Your task to perform on an android device: Show the shopping cart on ebay. Search for macbook air on ebay, select the first entry, add it to the cart, then select checkout. Image 0: 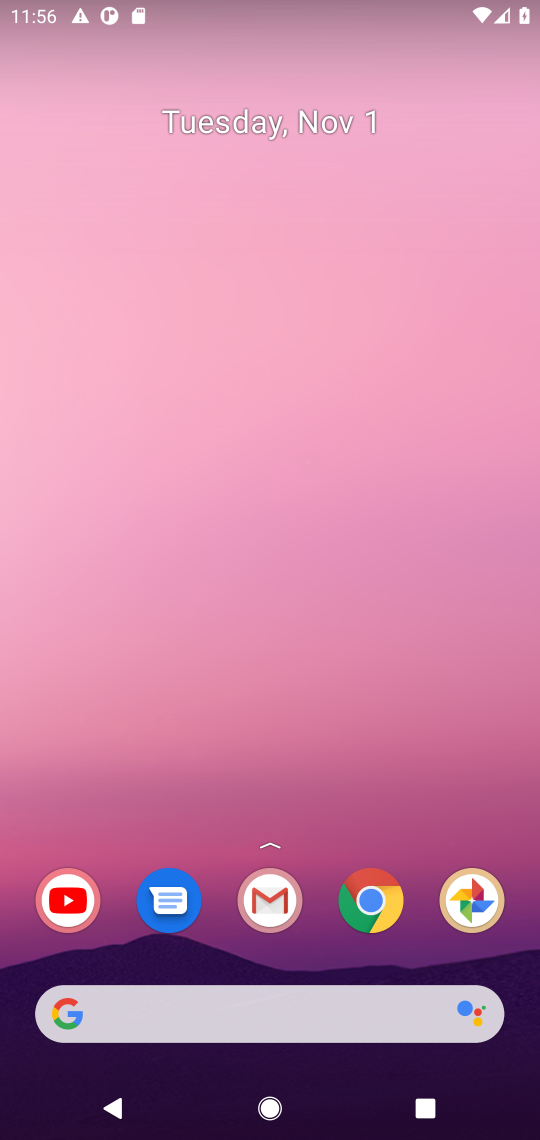
Step 0: click (376, 917)
Your task to perform on an android device: Show the shopping cart on ebay. Search for macbook air on ebay, select the first entry, add it to the cart, then select checkout. Image 1: 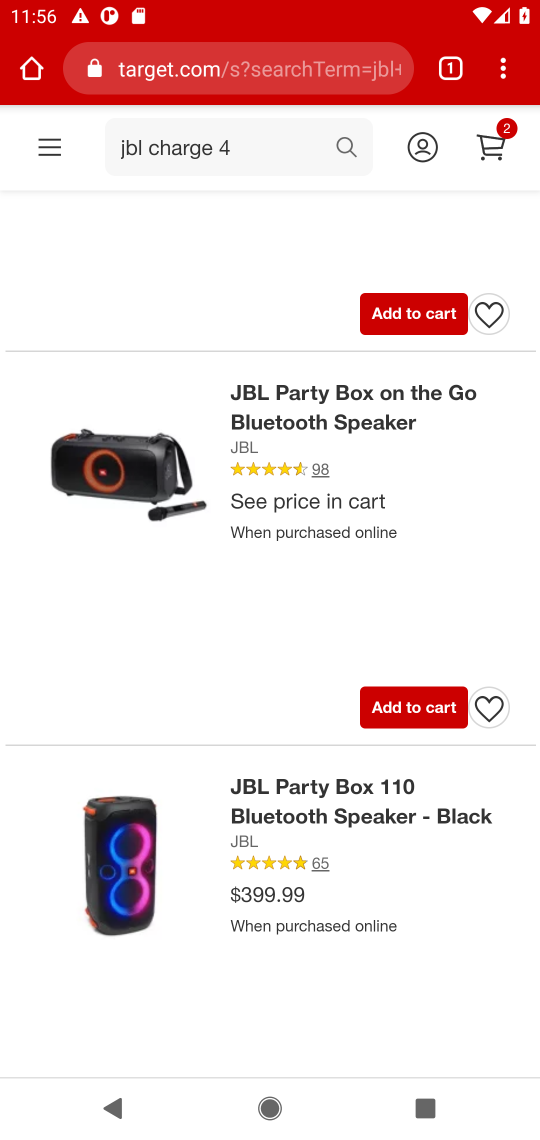
Step 1: click (263, 69)
Your task to perform on an android device: Show the shopping cart on ebay. Search for macbook air on ebay, select the first entry, add it to the cart, then select checkout. Image 2: 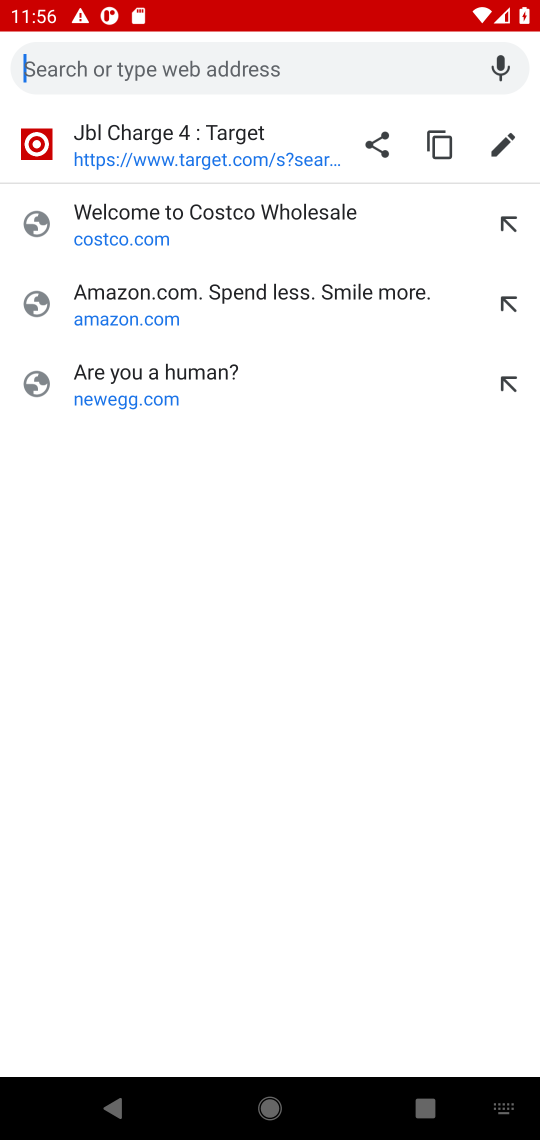
Step 2: type "ebay"
Your task to perform on an android device: Show the shopping cart on ebay. Search for macbook air on ebay, select the first entry, add it to the cart, then select checkout. Image 3: 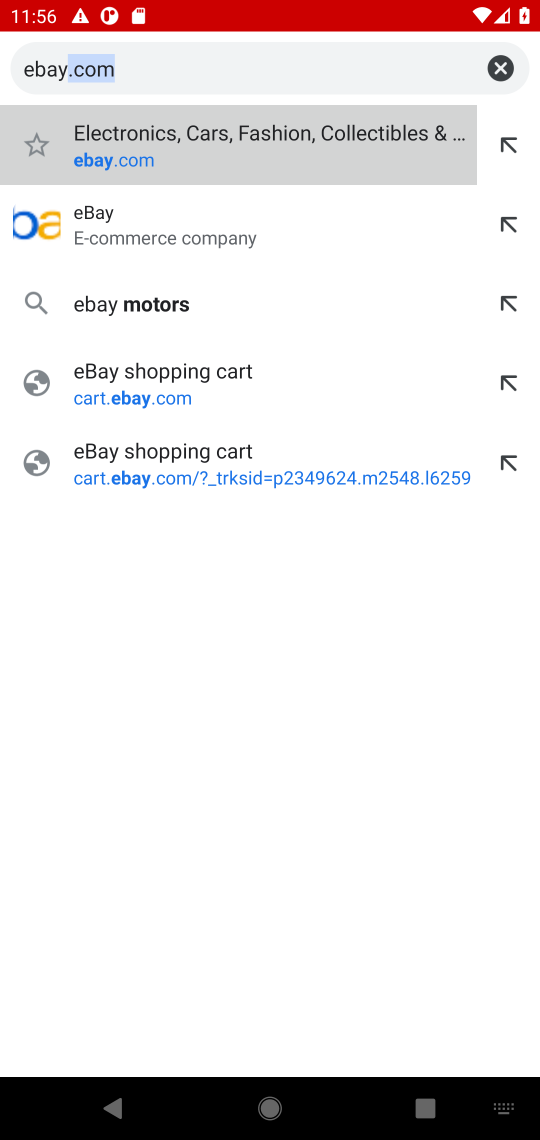
Step 3: click (22, 211)
Your task to perform on an android device: Show the shopping cart on ebay. Search for macbook air on ebay, select the first entry, add it to the cart, then select checkout. Image 4: 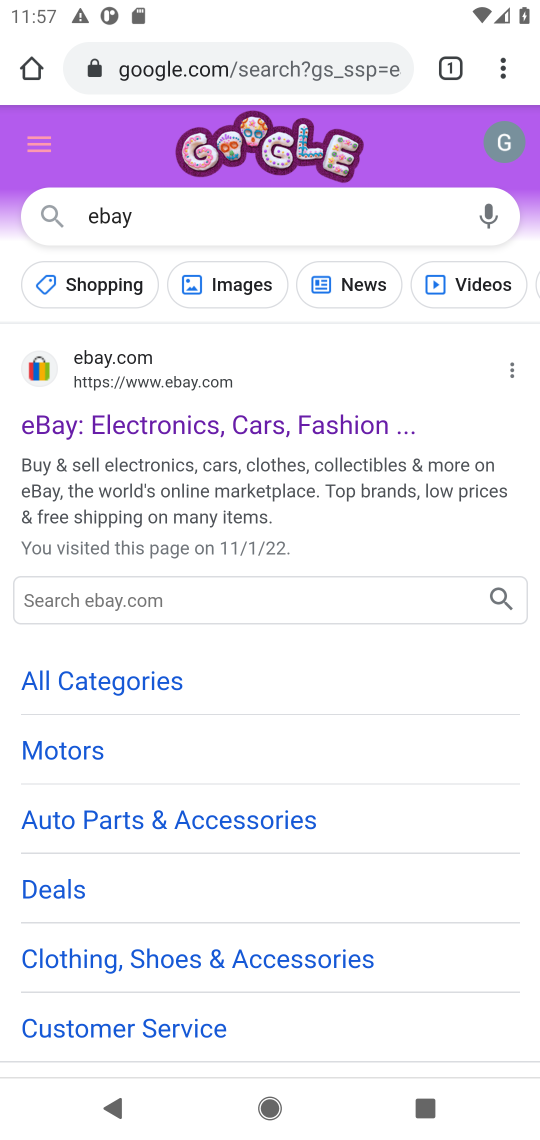
Step 4: click (23, 415)
Your task to perform on an android device: Show the shopping cart on ebay. Search for macbook air on ebay, select the first entry, add it to the cart, then select checkout. Image 5: 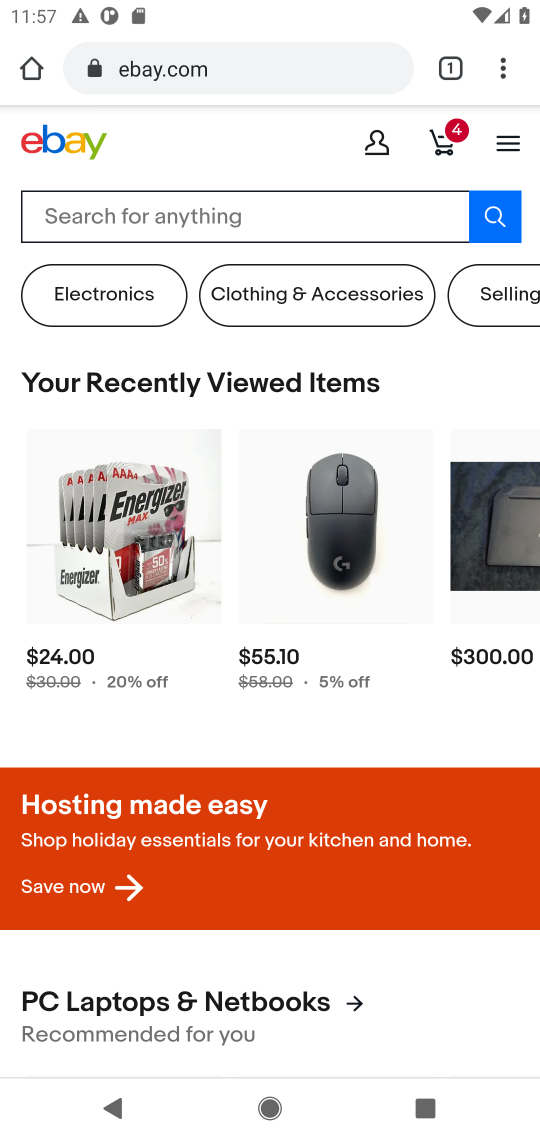
Step 5: click (459, 147)
Your task to perform on an android device: Show the shopping cart on ebay. Search for macbook air on ebay, select the first entry, add it to the cart, then select checkout. Image 6: 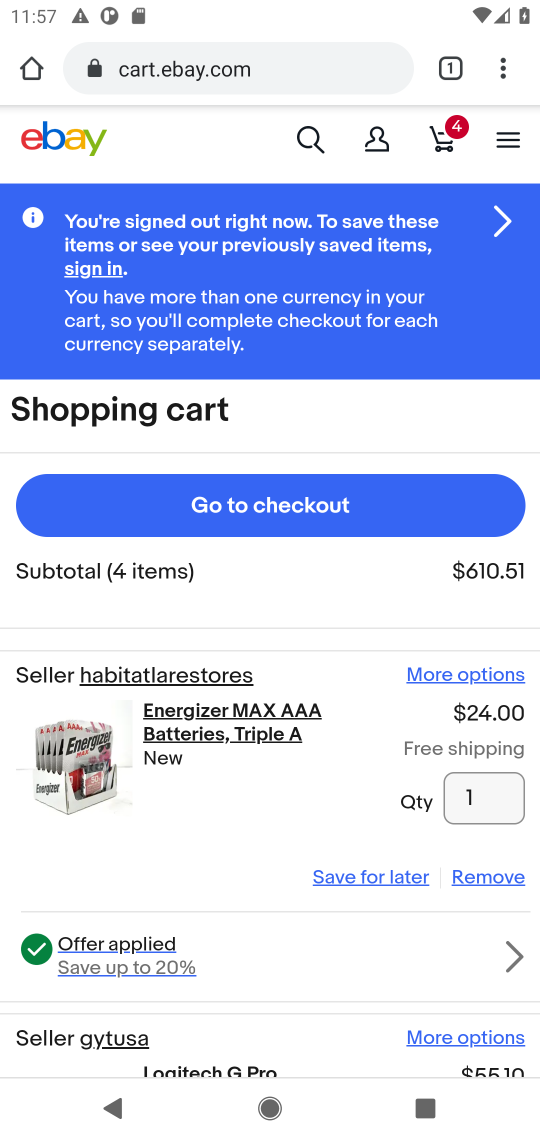
Step 6: click (318, 149)
Your task to perform on an android device: Show the shopping cart on ebay. Search for macbook air on ebay, select the first entry, add it to the cart, then select checkout. Image 7: 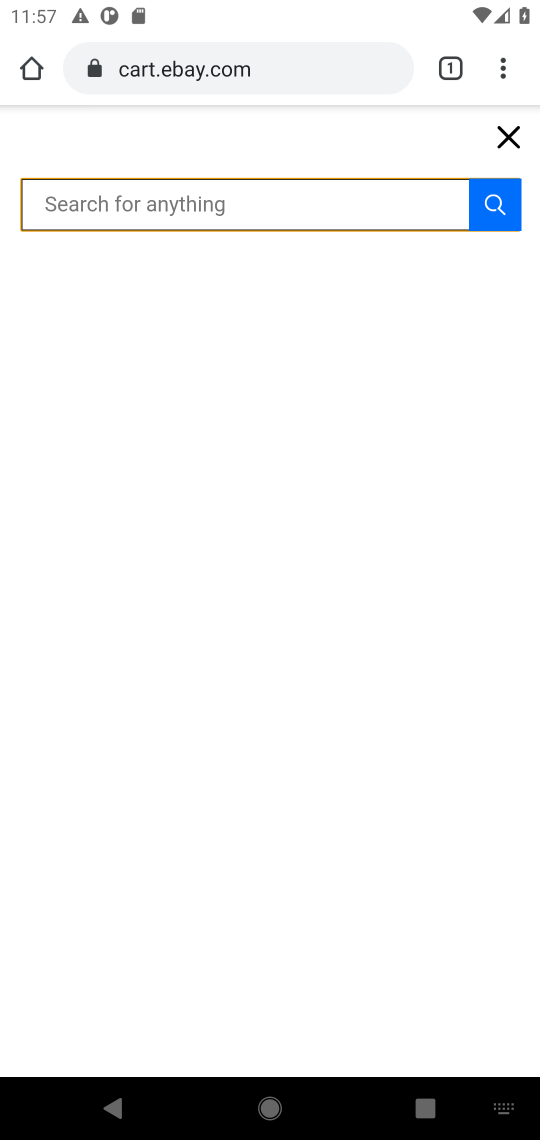
Step 7: type "macbook air "
Your task to perform on an android device: Show the shopping cart on ebay. Search for macbook air on ebay, select the first entry, add it to the cart, then select checkout. Image 8: 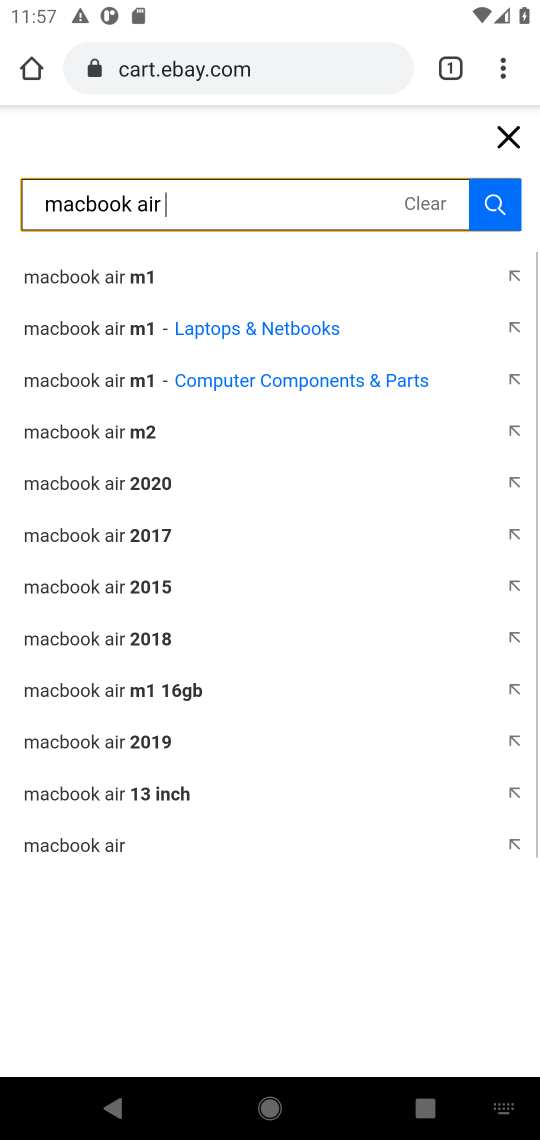
Step 8: type ""
Your task to perform on an android device: Show the shopping cart on ebay. Search for macbook air on ebay, select the first entry, add it to the cart, then select checkout. Image 9: 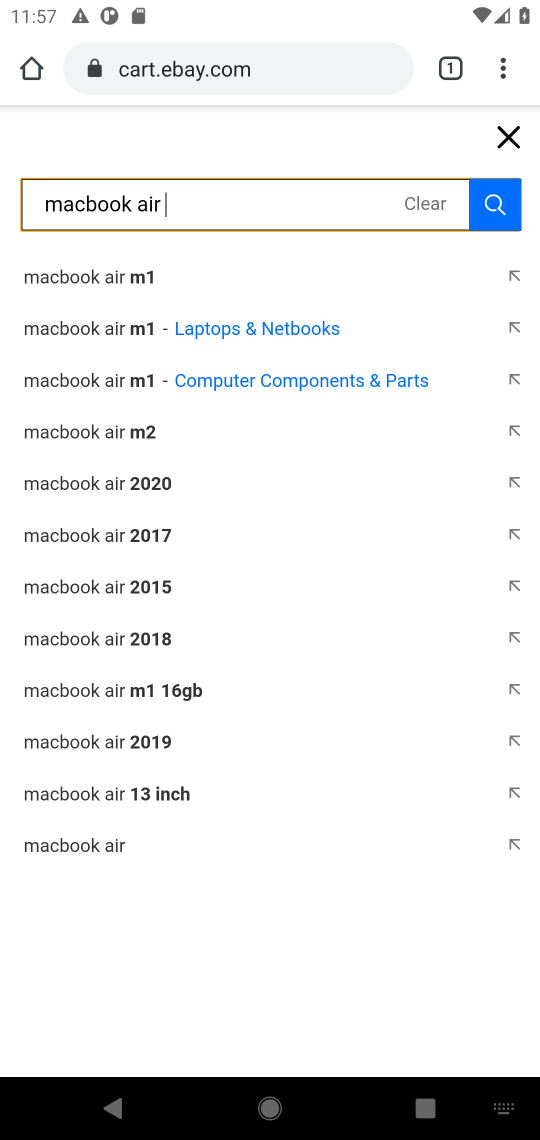
Step 9: click (483, 205)
Your task to perform on an android device: Show the shopping cart on ebay. Search for macbook air on ebay, select the first entry, add it to the cart, then select checkout. Image 10: 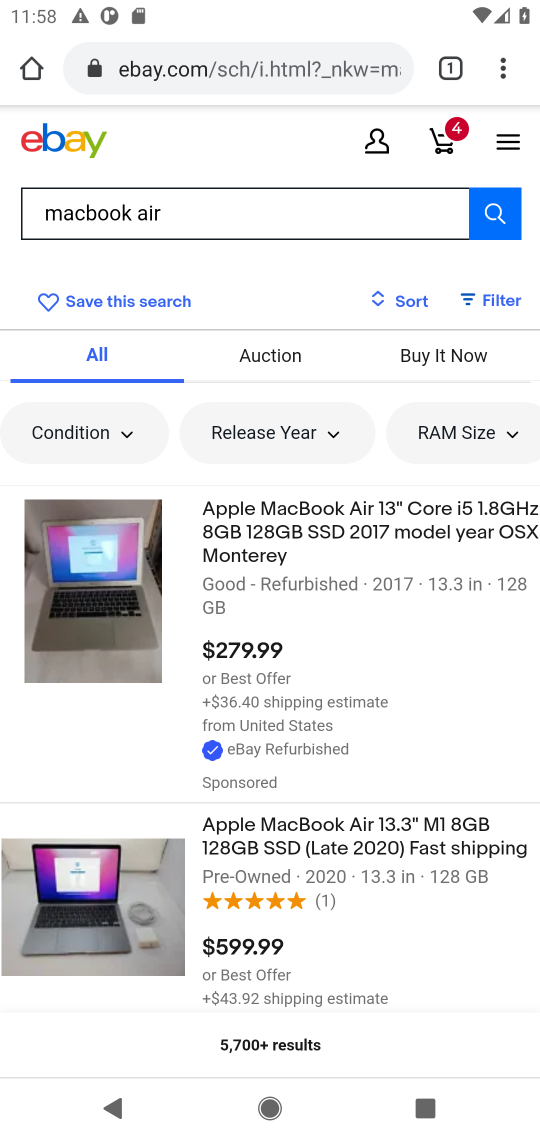
Step 10: click (380, 542)
Your task to perform on an android device: Show the shopping cart on ebay. Search for macbook air on ebay, select the first entry, add it to the cart, then select checkout. Image 11: 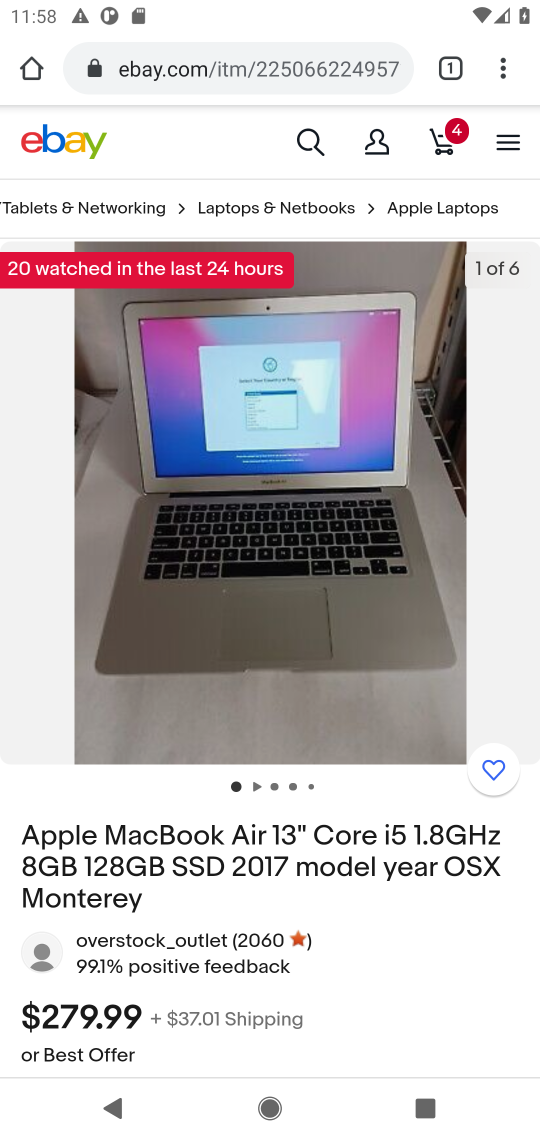
Step 11: drag from (192, 1046) to (233, 424)
Your task to perform on an android device: Show the shopping cart on ebay. Search for macbook air on ebay, select the first entry, add it to the cart, then select checkout. Image 12: 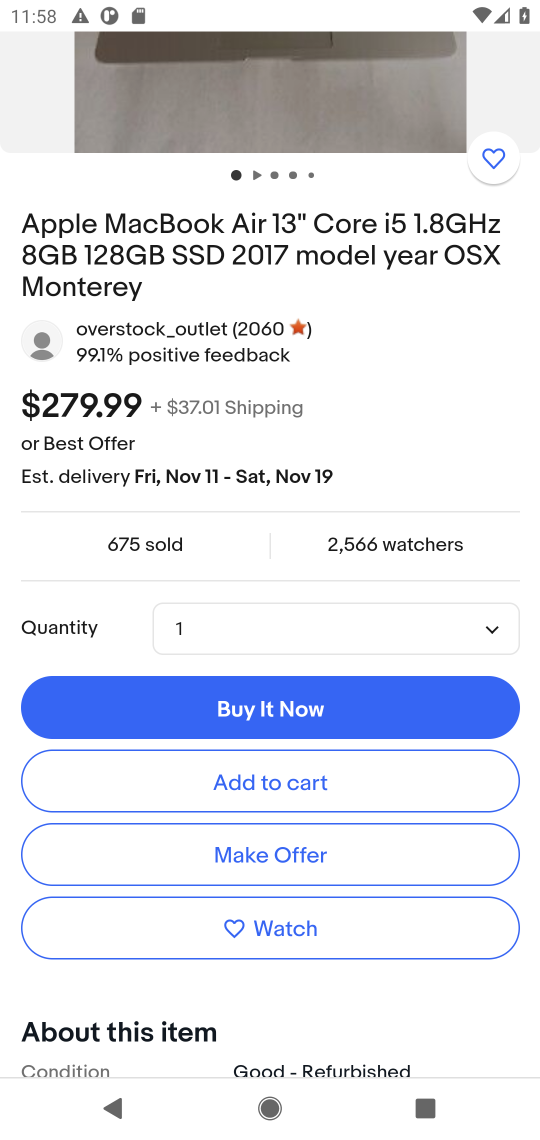
Step 12: click (237, 769)
Your task to perform on an android device: Show the shopping cart on ebay. Search for macbook air on ebay, select the first entry, add it to the cart, then select checkout. Image 13: 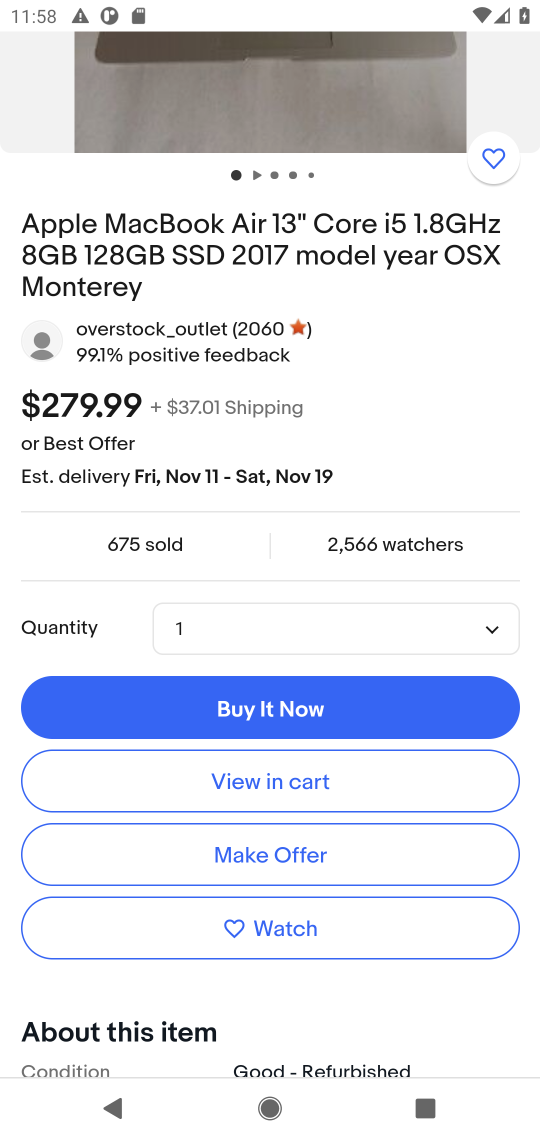
Step 13: click (237, 769)
Your task to perform on an android device: Show the shopping cart on ebay. Search for macbook air on ebay, select the first entry, add it to the cart, then select checkout. Image 14: 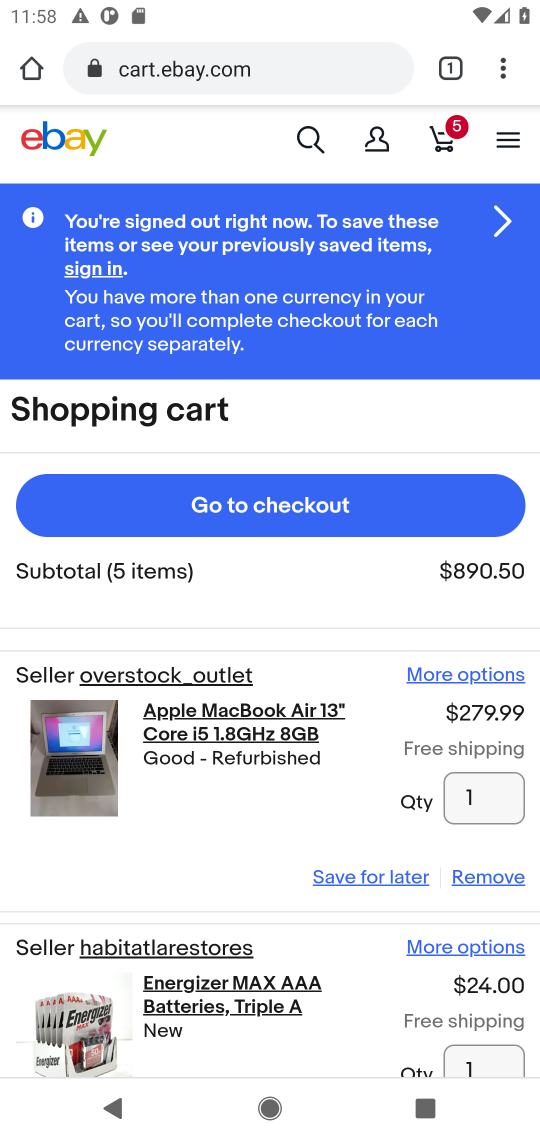
Step 14: click (151, 487)
Your task to perform on an android device: Show the shopping cart on ebay. Search for macbook air on ebay, select the first entry, add it to the cart, then select checkout. Image 15: 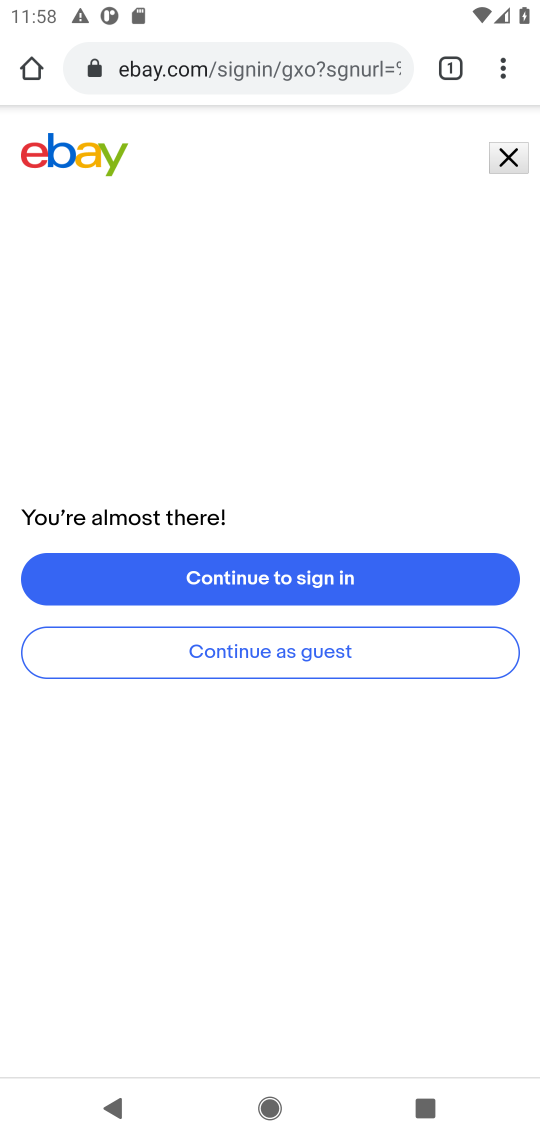
Step 15: task complete